Your task to perform on an android device: toggle translation in the chrome app Image 0: 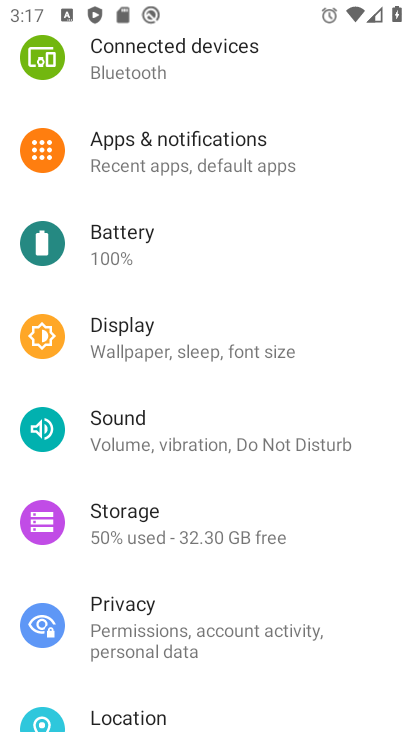
Step 0: press home button
Your task to perform on an android device: toggle translation in the chrome app Image 1: 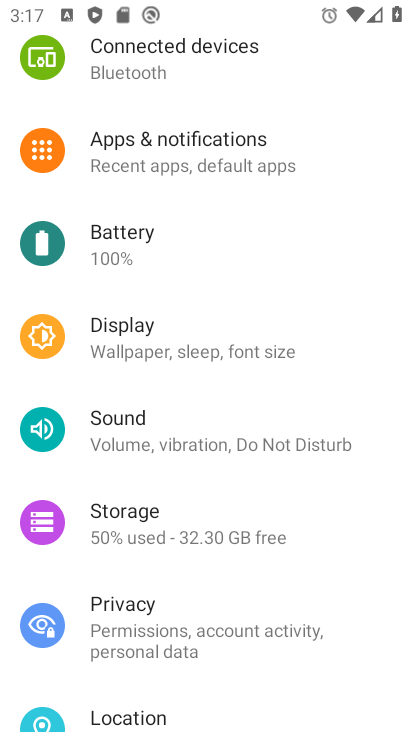
Step 1: drag from (150, 605) to (211, 5)
Your task to perform on an android device: toggle translation in the chrome app Image 2: 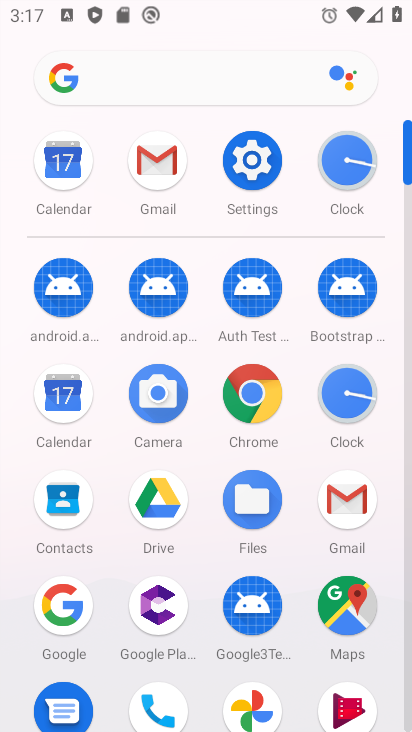
Step 2: click (246, 386)
Your task to perform on an android device: toggle translation in the chrome app Image 3: 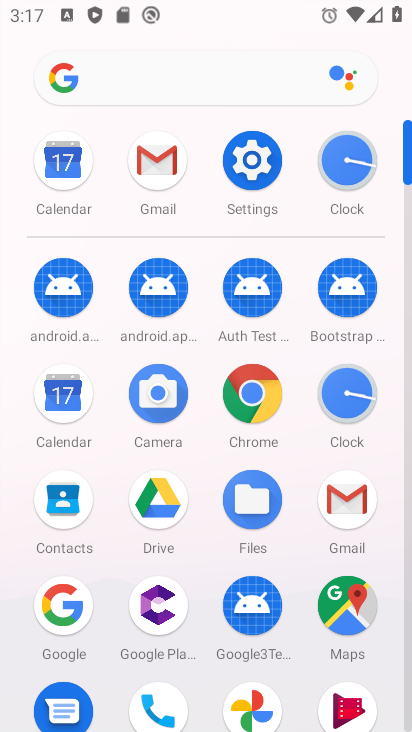
Step 3: click (246, 386)
Your task to perform on an android device: toggle translation in the chrome app Image 4: 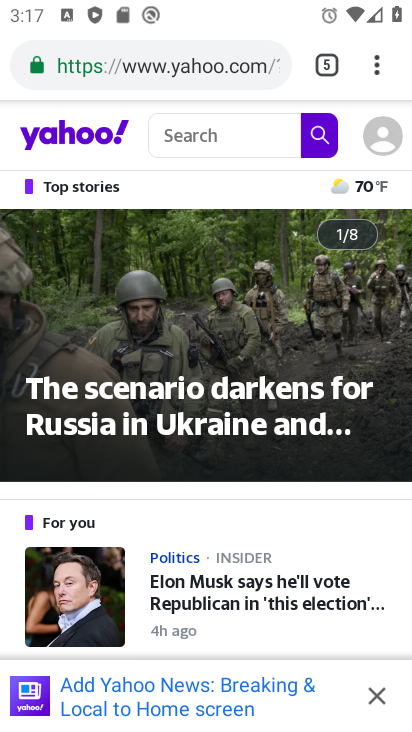
Step 4: click (387, 61)
Your task to perform on an android device: toggle translation in the chrome app Image 5: 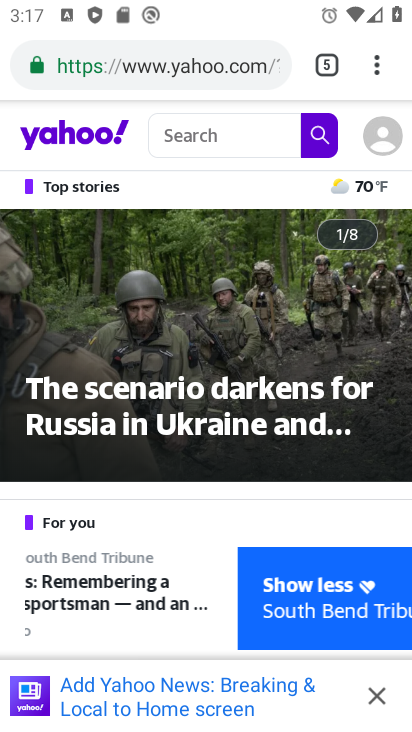
Step 5: click (370, 56)
Your task to perform on an android device: toggle translation in the chrome app Image 6: 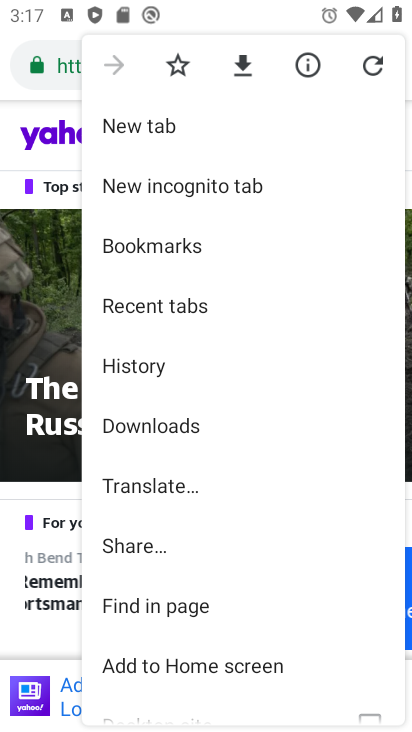
Step 6: drag from (169, 635) to (297, 109)
Your task to perform on an android device: toggle translation in the chrome app Image 7: 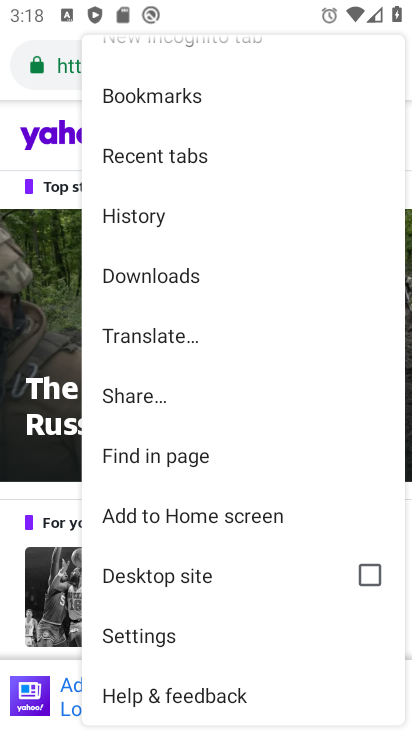
Step 7: click (212, 635)
Your task to perform on an android device: toggle translation in the chrome app Image 8: 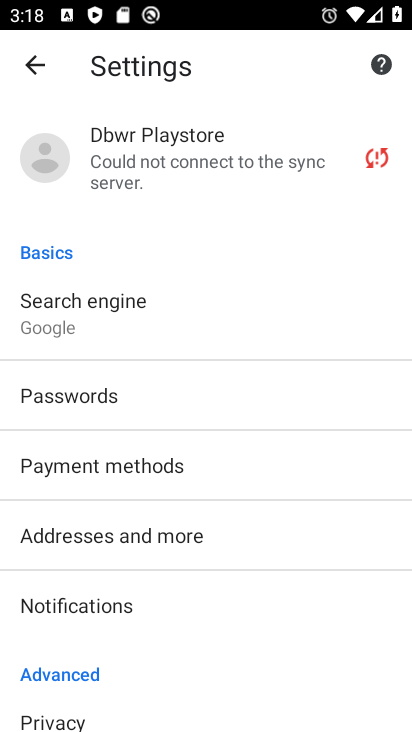
Step 8: drag from (174, 630) to (305, 171)
Your task to perform on an android device: toggle translation in the chrome app Image 9: 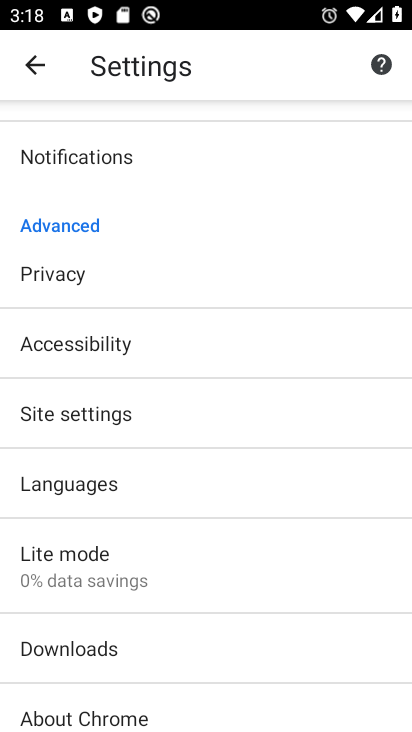
Step 9: click (165, 483)
Your task to perform on an android device: toggle translation in the chrome app Image 10: 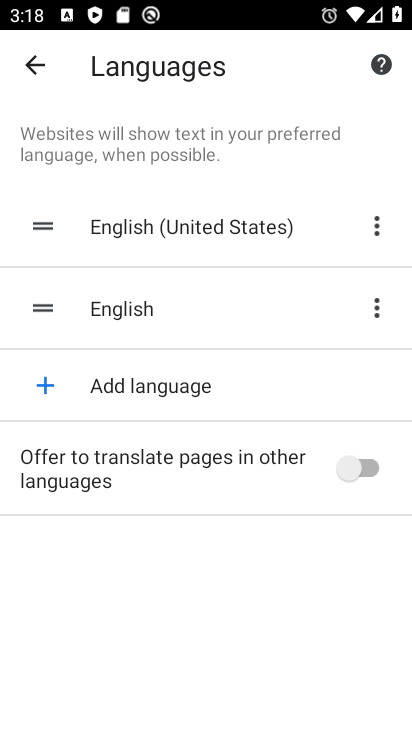
Step 10: click (302, 450)
Your task to perform on an android device: toggle translation in the chrome app Image 11: 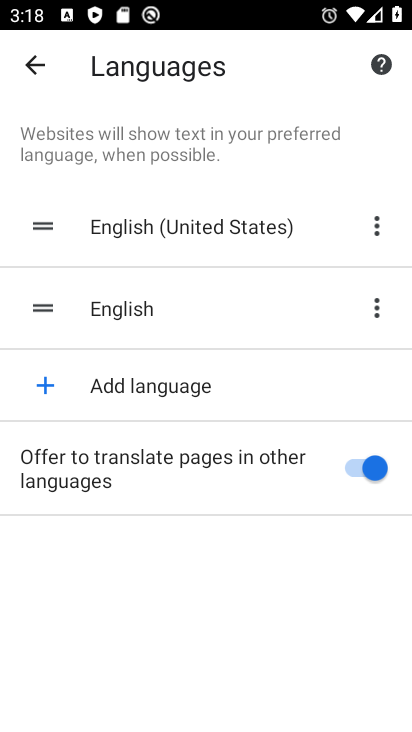
Step 11: task complete